Your task to perform on an android device: check storage Image 0: 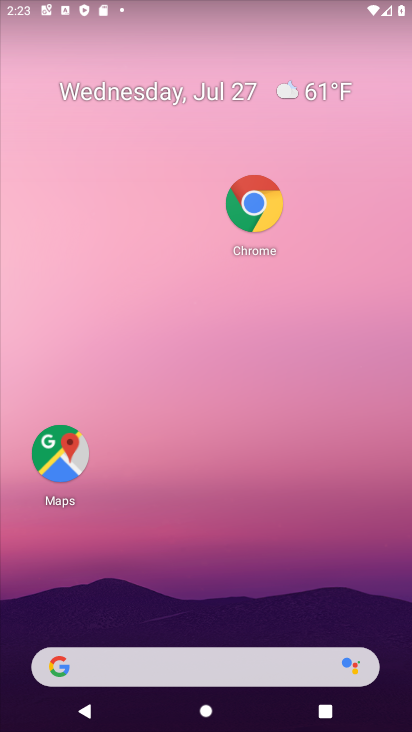
Step 0: drag from (278, 611) to (305, 192)
Your task to perform on an android device: check storage Image 1: 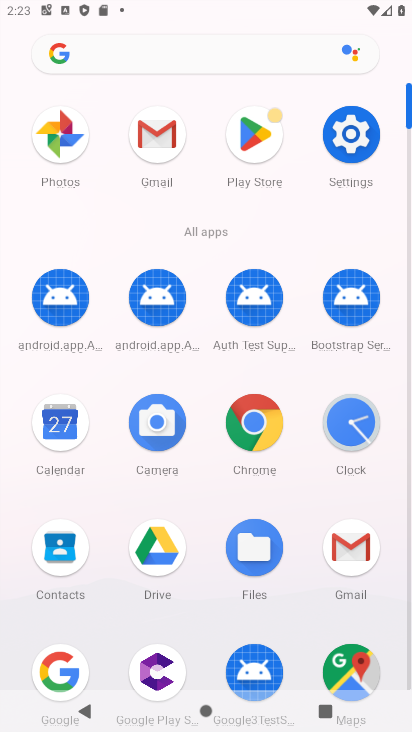
Step 1: click (352, 147)
Your task to perform on an android device: check storage Image 2: 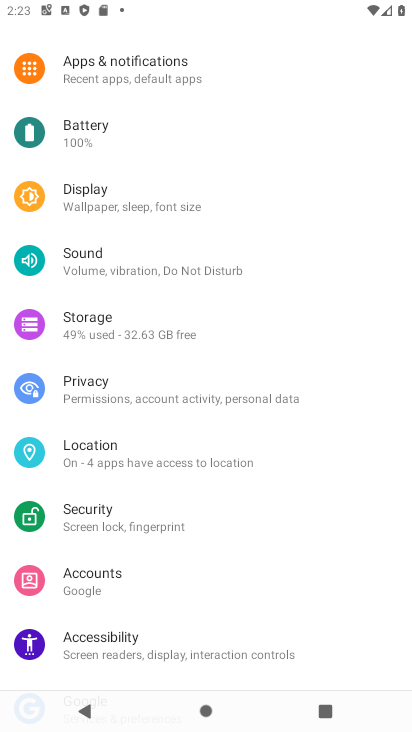
Step 2: click (233, 333)
Your task to perform on an android device: check storage Image 3: 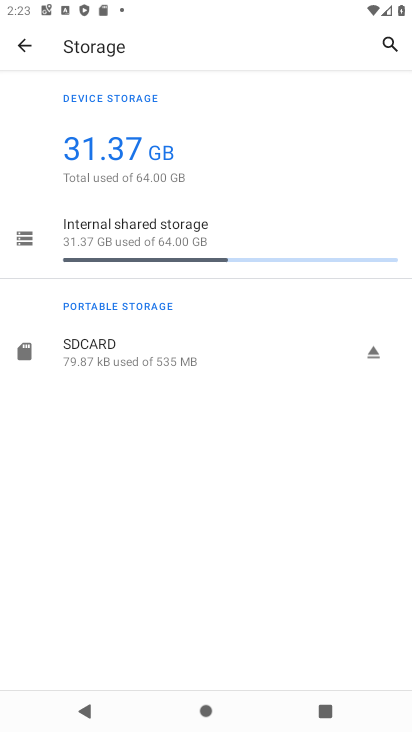
Step 3: click (189, 247)
Your task to perform on an android device: check storage Image 4: 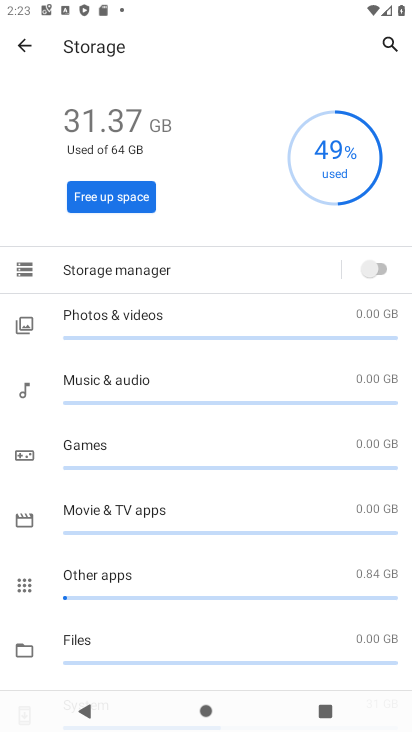
Step 4: task complete